Your task to perform on an android device: Open Google Image 0: 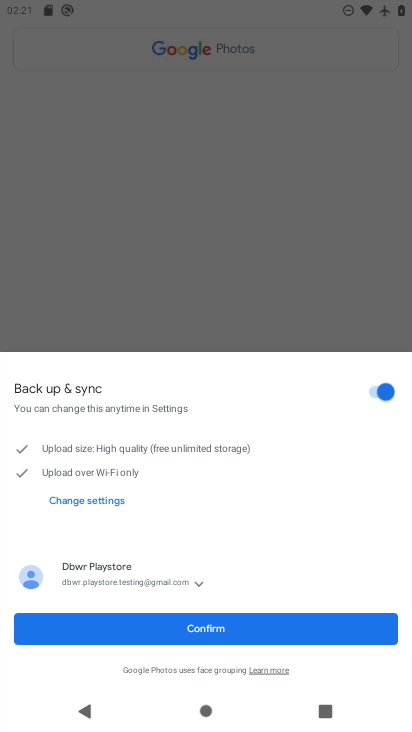
Step 0: press home button
Your task to perform on an android device: Open Google Image 1: 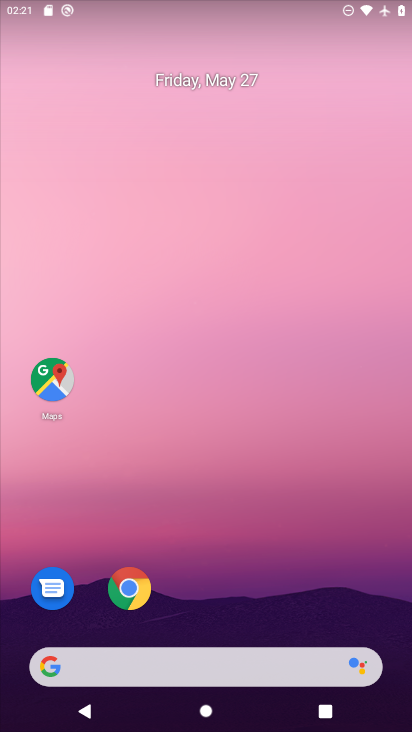
Step 1: click (129, 586)
Your task to perform on an android device: Open Google Image 2: 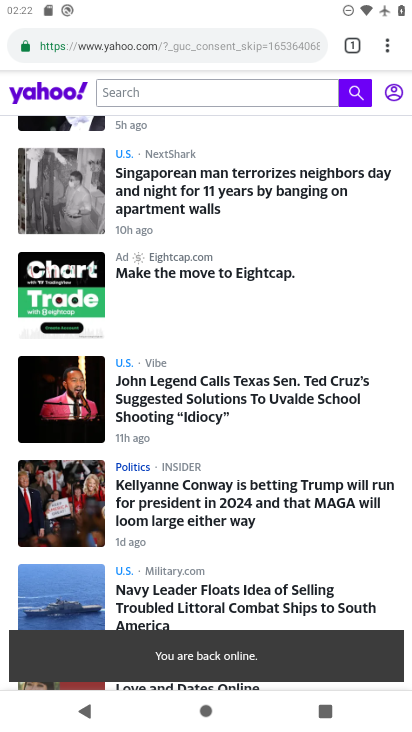
Step 2: task complete